Your task to perform on an android device: Open accessibility settings Image 0: 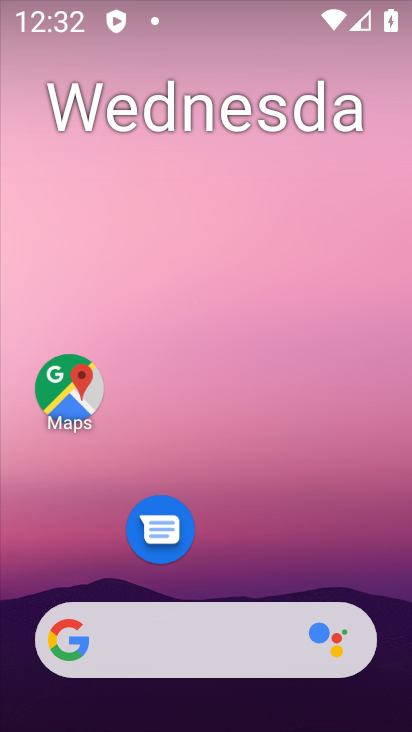
Step 0: drag from (229, 601) to (269, 31)
Your task to perform on an android device: Open accessibility settings Image 1: 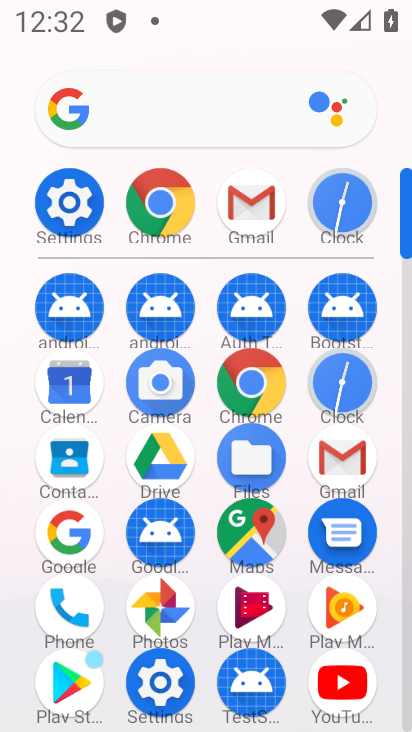
Step 1: click (58, 208)
Your task to perform on an android device: Open accessibility settings Image 2: 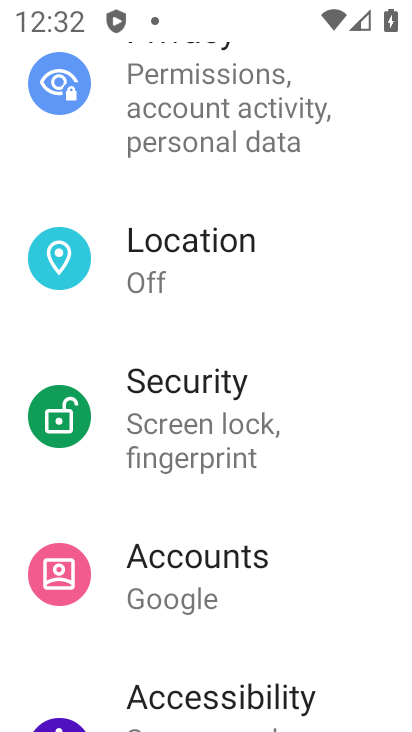
Step 2: drag from (217, 497) to (336, 42)
Your task to perform on an android device: Open accessibility settings Image 3: 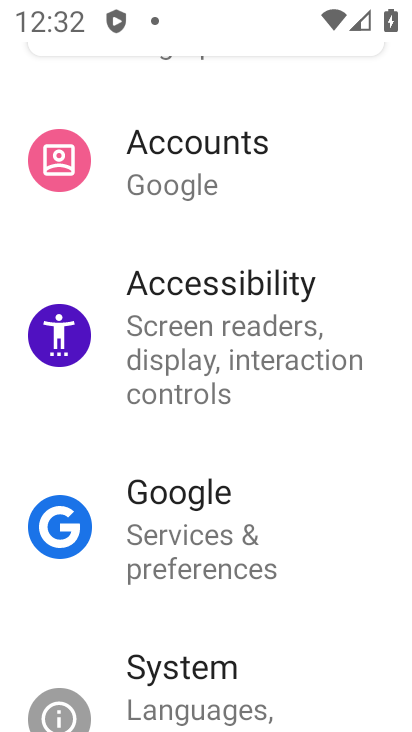
Step 3: click (245, 311)
Your task to perform on an android device: Open accessibility settings Image 4: 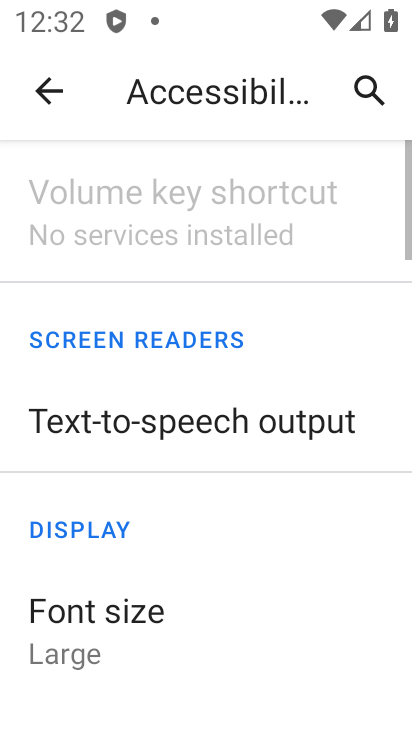
Step 4: task complete